Your task to perform on an android device: Open battery settings Image 0: 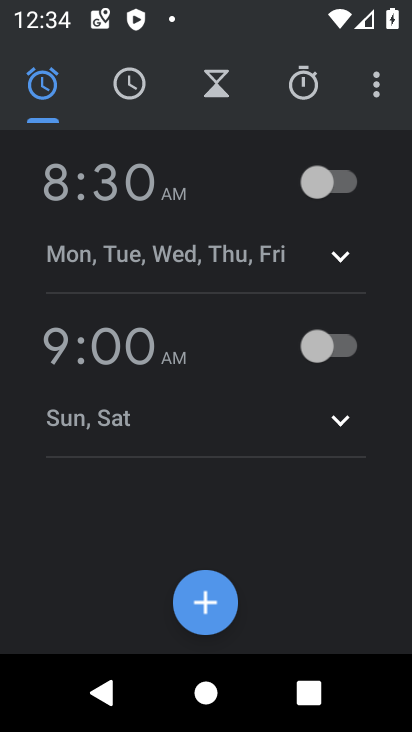
Step 0: press home button
Your task to perform on an android device: Open battery settings Image 1: 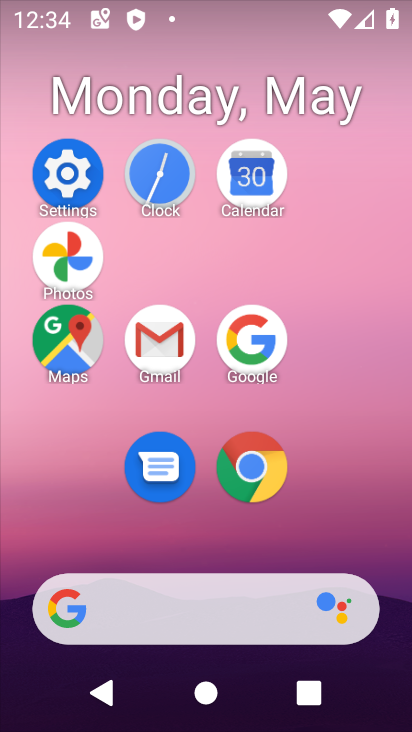
Step 1: click (80, 164)
Your task to perform on an android device: Open battery settings Image 2: 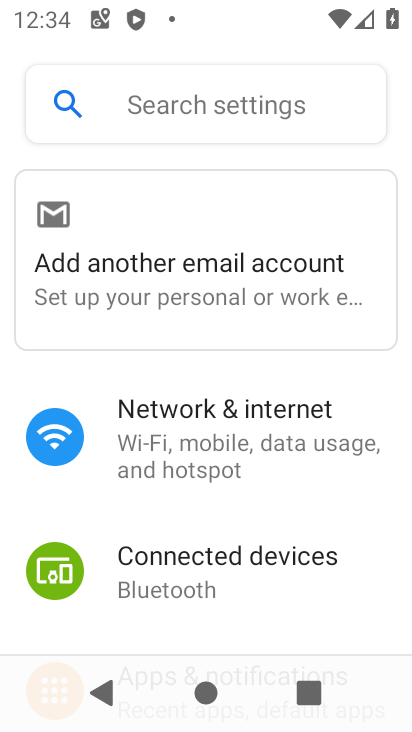
Step 2: drag from (313, 578) to (316, 154)
Your task to perform on an android device: Open battery settings Image 3: 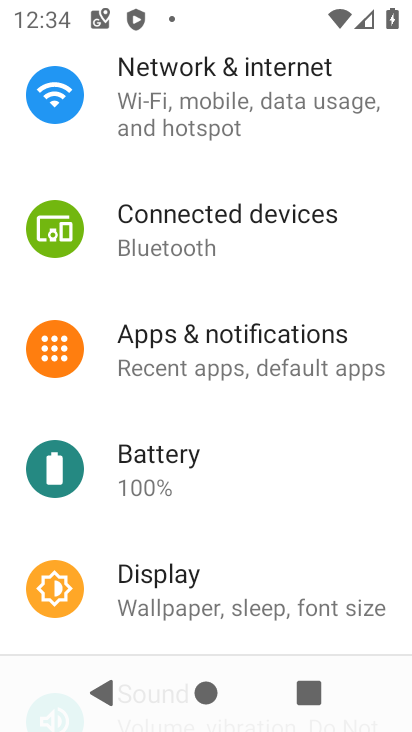
Step 3: click (273, 466)
Your task to perform on an android device: Open battery settings Image 4: 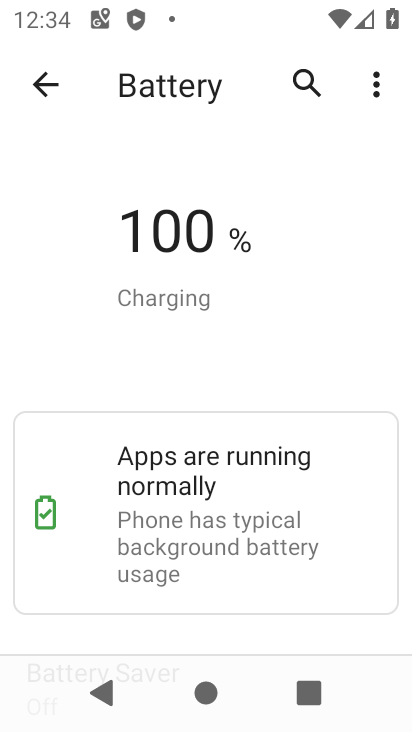
Step 4: task complete